Your task to perform on an android device: open sync settings in chrome Image 0: 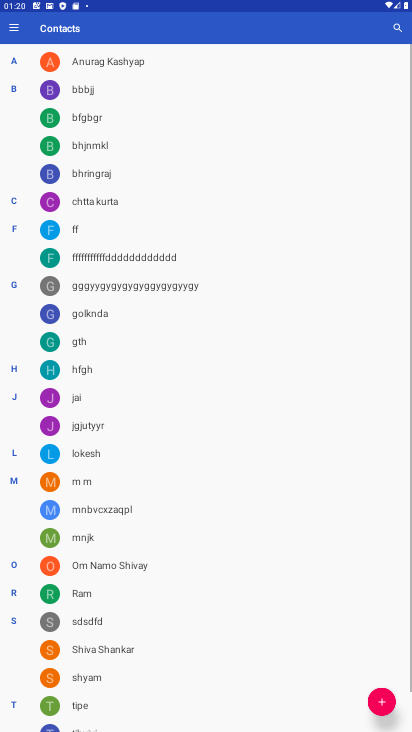
Step 0: drag from (239, 470) to (271, 224)
Your task to perform on an android device: open sync settings in chrome Image 1: 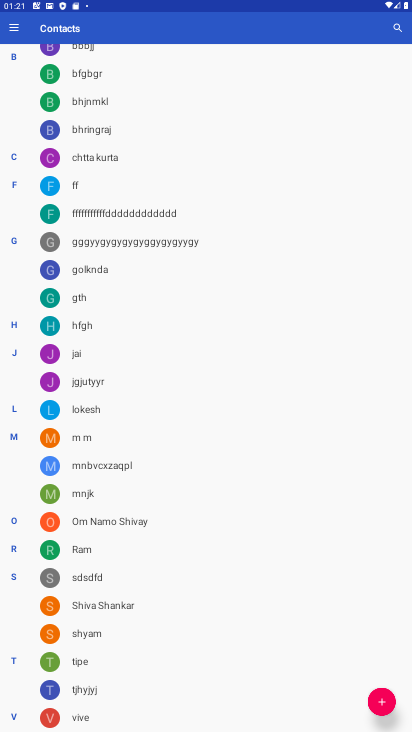
Step 1: press home button
Your task to perform on an android device: open sync settings in chrome Image 2: 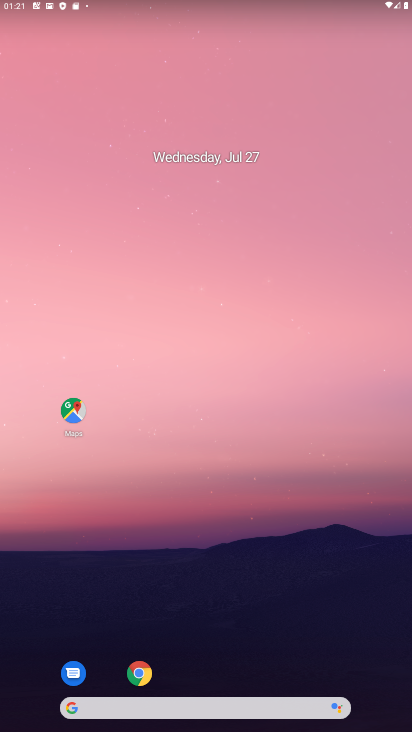
Step 2: drag from (211, 675) to (244, 148)
Your task to perform on an android device: open sync settings in chrome Image 3: 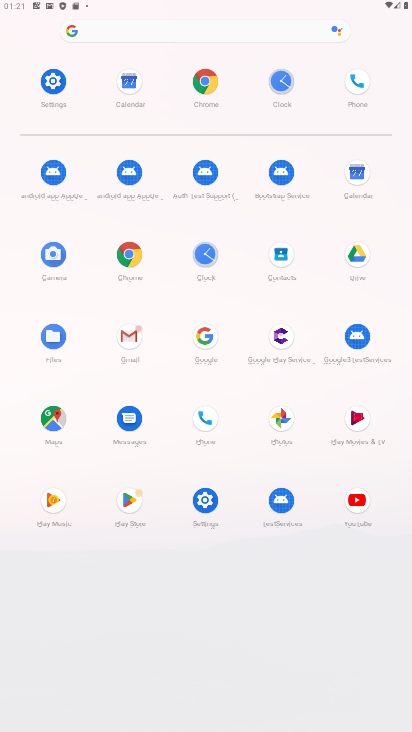
Step 3: click (206, 71)
Your task to perform on an android device: open sync settings in chrome Image 4: 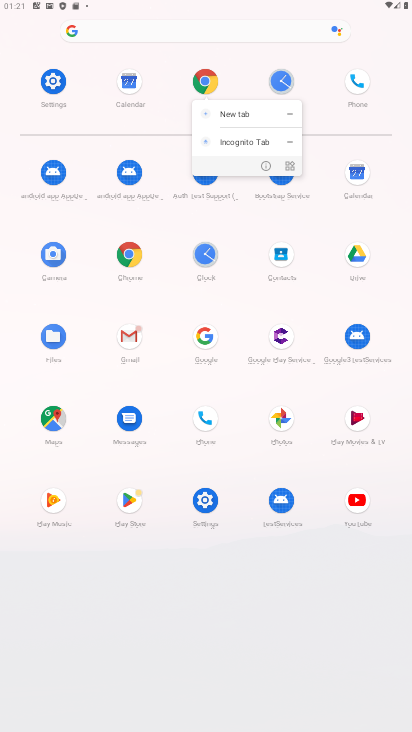
Step 4: click (207, 79)
Your task to perform on an android device: open sync settings in chrome Image 5: 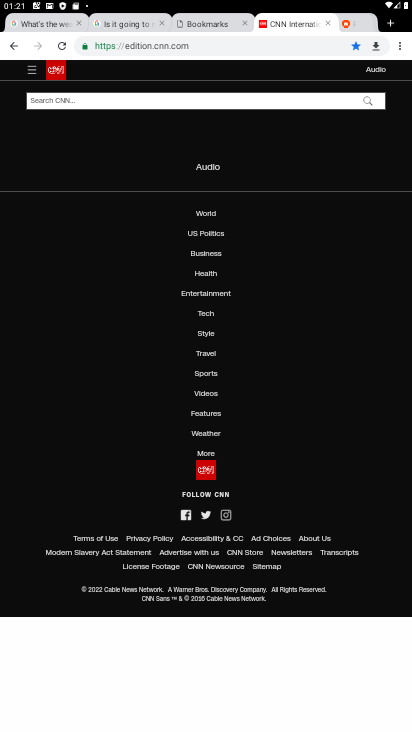
Step 5: click (404, 48)
Your task to perform on an android device: open sync settings in chrome Image 6: 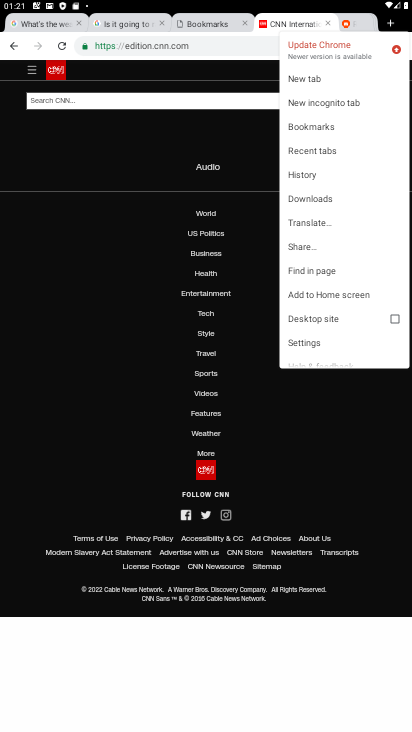
Step 6: click (316, 343)
Your task to perform on an android device: open sync settings in chrome Image 7: 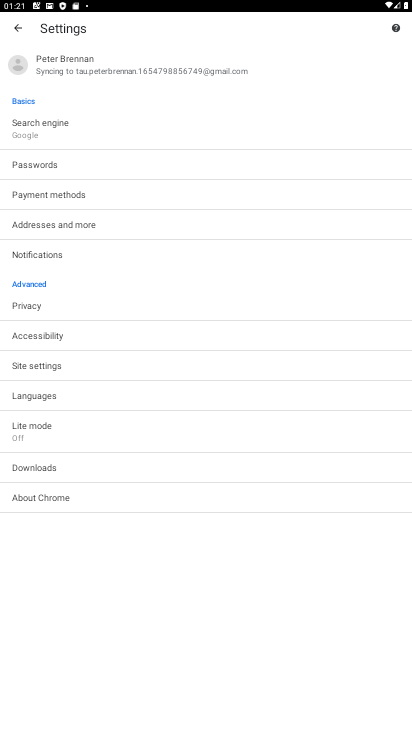
Step 7: click (57, 128)
Your task to perform on an android device: open sync settings in chrome Image 8: 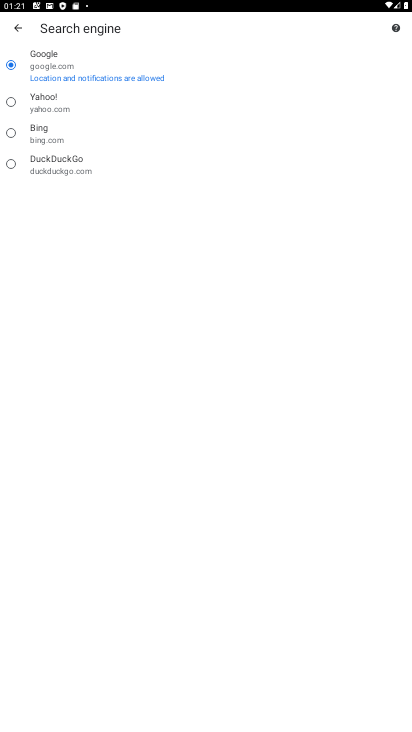
Step 8: click (12, 26)
Your task to perform on an android device: open sync settings in chrome Image 9: 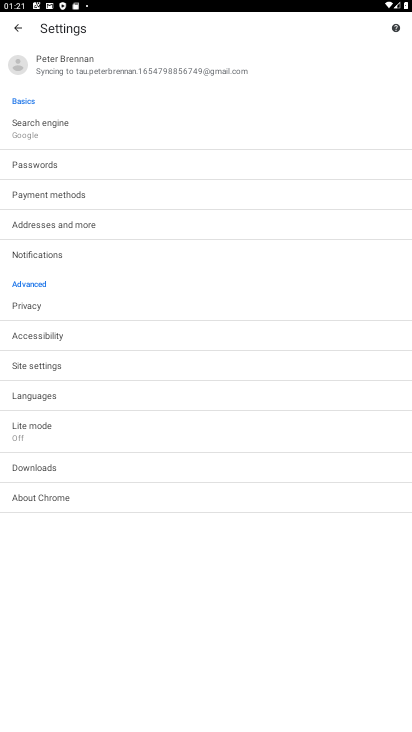
Step 9: click (70, 58)
Your task to perform on an android device: open sync settings in chrome Image 10: 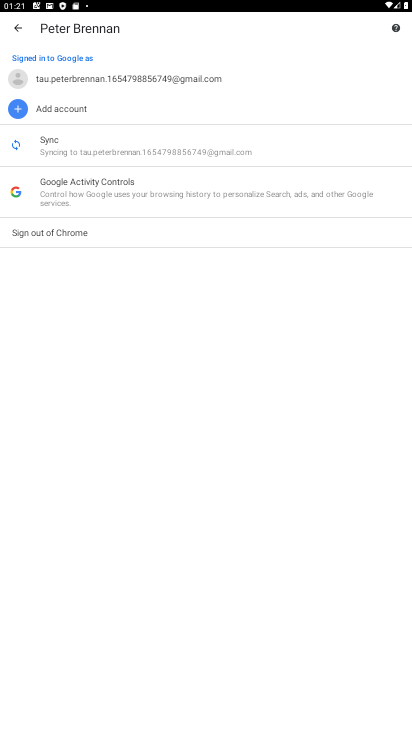
Step 10: click (127, 137)
Your task to perform on an android device: open sync settings in chrome Image 11: 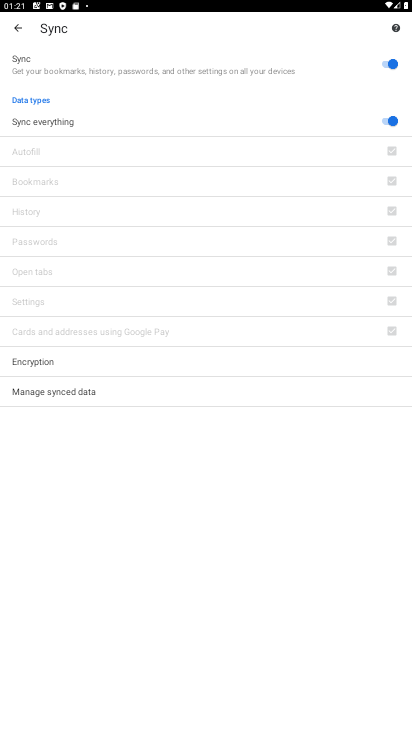
Step 11: task complete